Your task to perform on an android device: Go to accessibility settings Image 0: 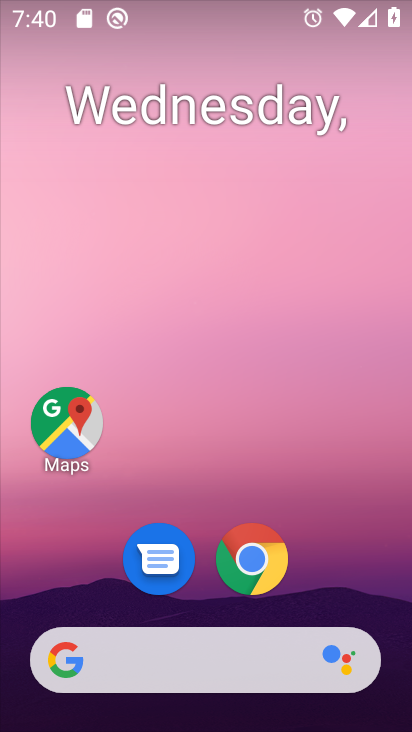
Step 0: drag from (341, 575) to (306, 179)
Your task to perform on an android device: Go to accessibility settings Image 1: 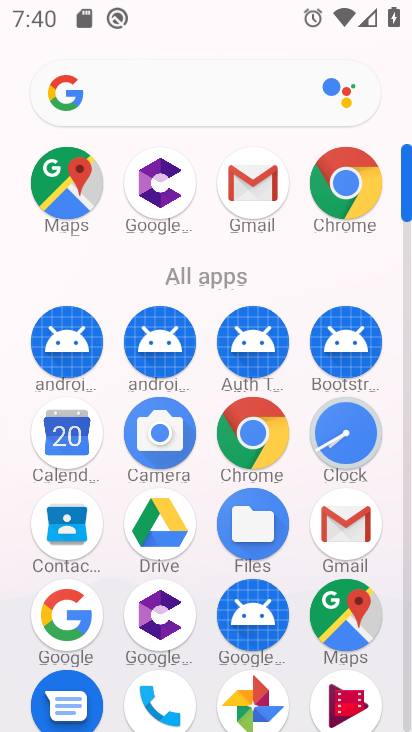
Step 1: drag from (283, 657) to (290, 341)
Your task to perform on an android device: Go to accessibility settings Image 2: 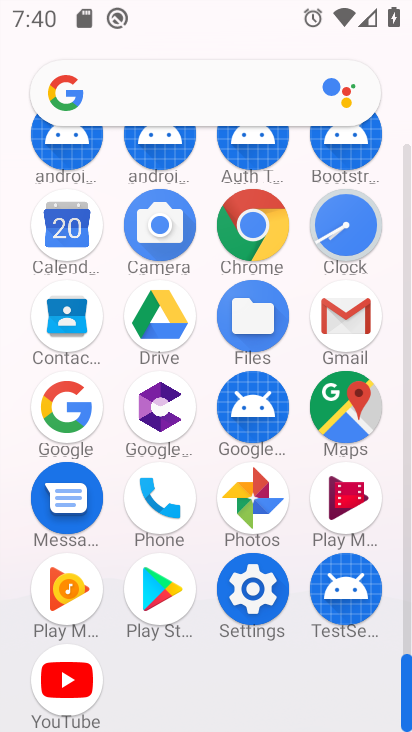
Step 2: click (246, 598)
Your task to perform on an android device: Go to accessibility settings Image 3: 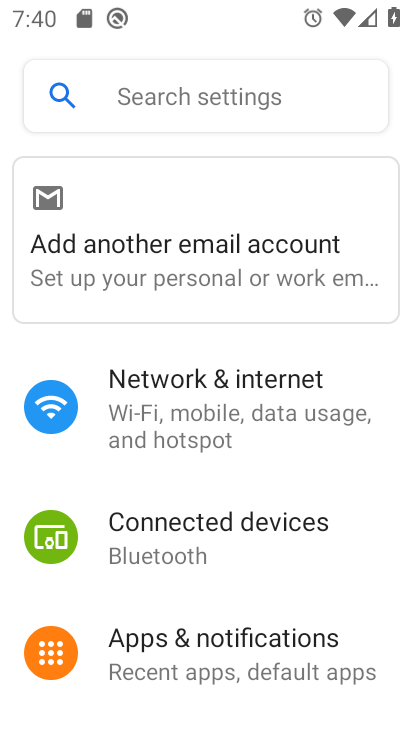
Step 3: drag from (365, 645) to (317, 202)
Your task to perform on an android device: Go to accessibility settings Image 4: 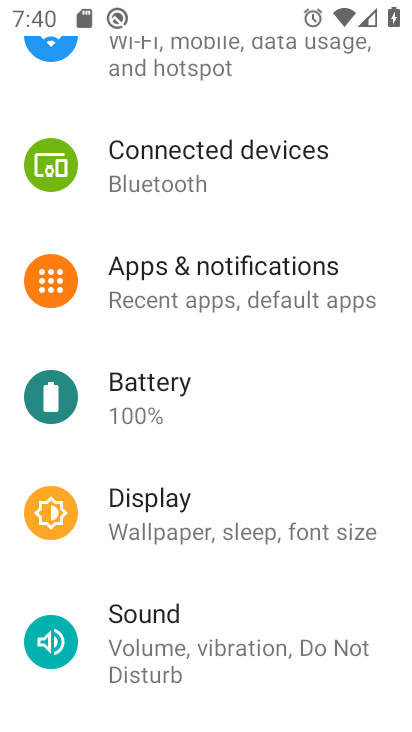
Step 4: drag from (309, 572) to (300, 245)
Your task to perform on an android device: Go to accessibility settings Image 5: 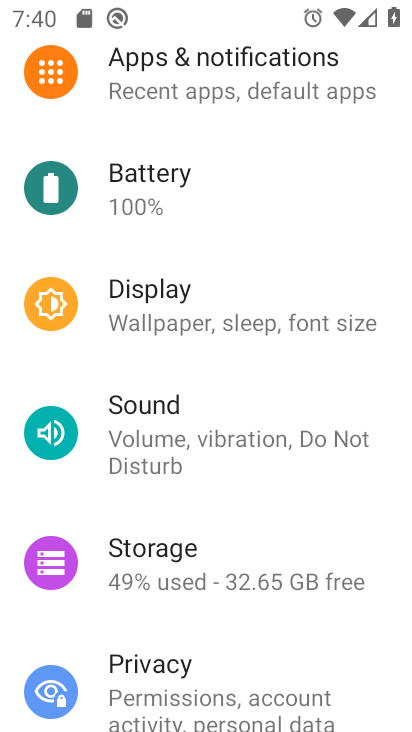
Step 5: drag from (318, 621) to (319, 281)
Your task to perform on an android device: Go to accessibility settings Image 6: 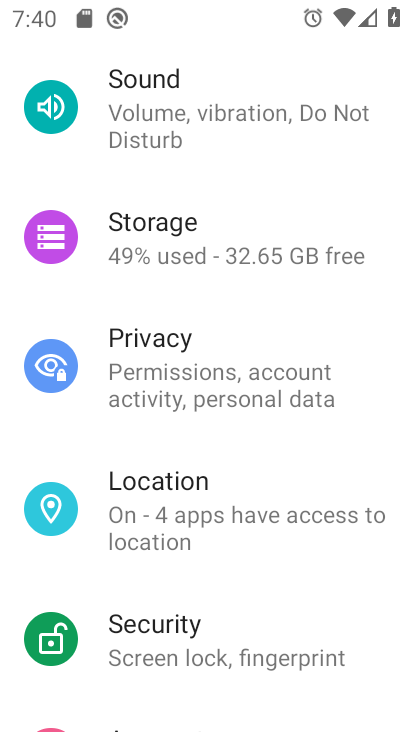
Step 6: drag from (290, 601) to (314, 207)
Your task to perform on an android device: Go to accessibility settings Image 7: 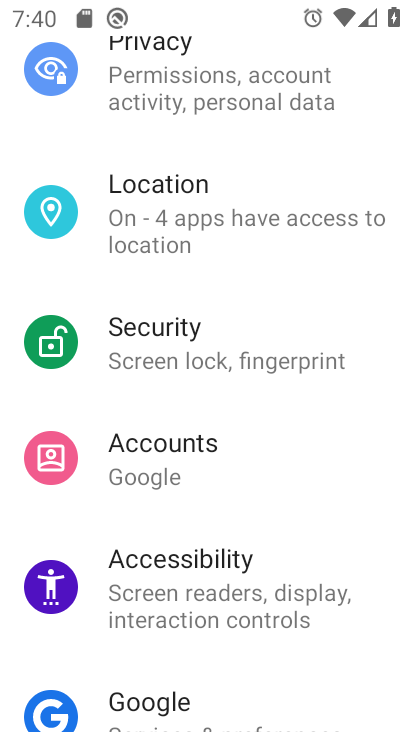
Step 7: click (239, 566)
Your task to perform on an android device: Go to accessibility settings Image 8: 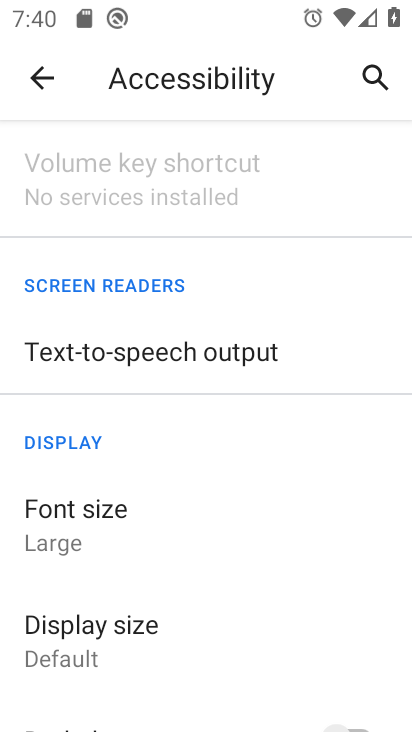
Step 8: task complete